Your task to perform on an android device: turn on translation in the chrome app Image 0: 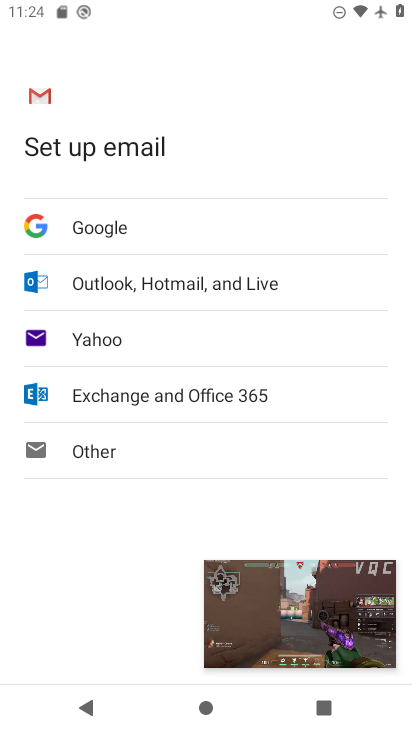
Step 0: click (271, 628)
Your task to perform on an android device: turn on translation in the chrome app Image 1: 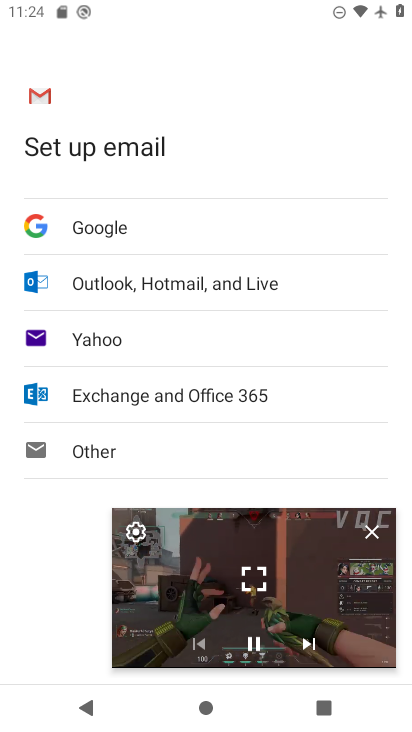
Step 1: click (370, 531)
Your task to perform on an android device: turn on translation in the chrome app Image 2: 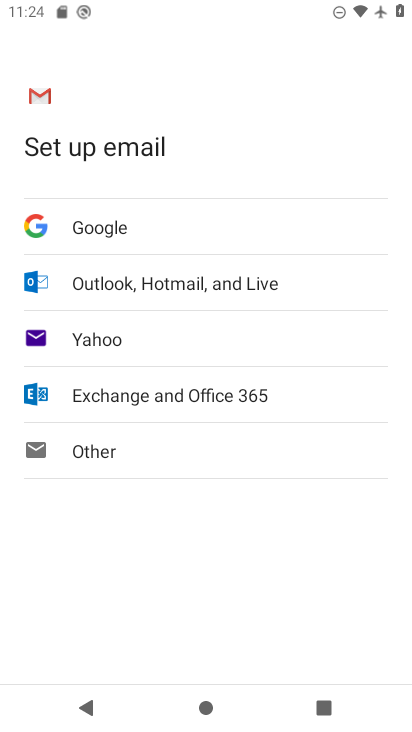
Step 2: press home button
Your task to perform on an android device: turn on translation in the chrome app Image 3: 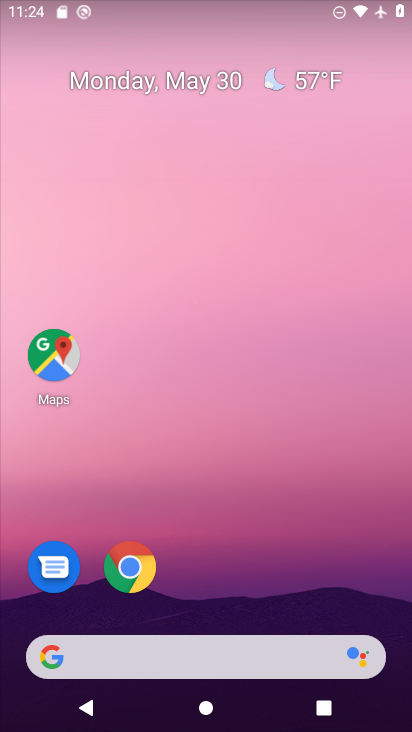
Step 3: click (135, 570)
Your task to perform on an android device: turn on translation in the chrome app Image 4: 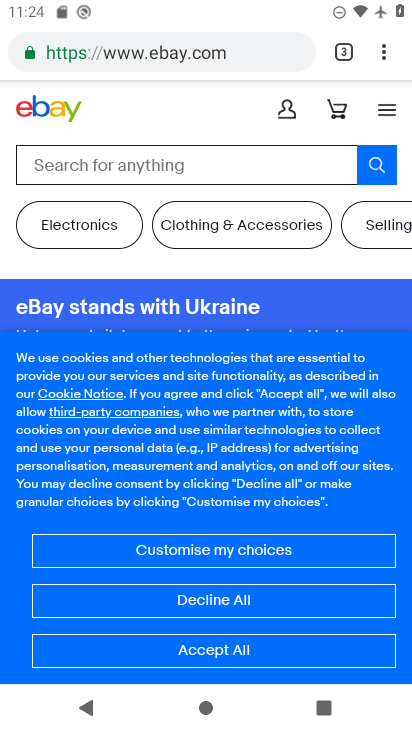
Step 4: click (385, 50)
Your task to perform on an android device: turn on translation in the chrome app Image 5: 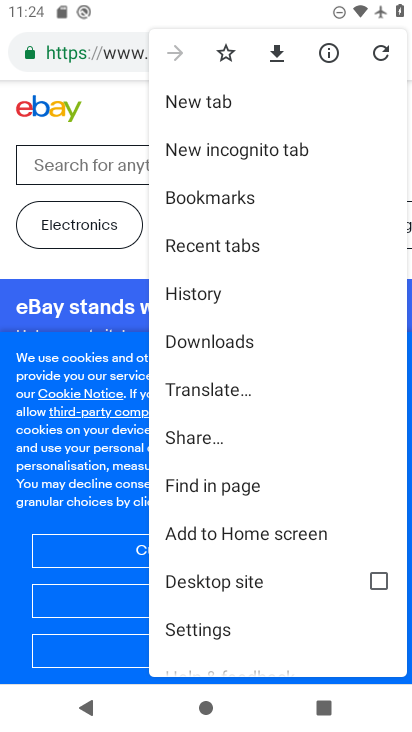
Step 5: click (221, 628)
Your task to perform on an android device: turn on translation in the chrome app Image 6: 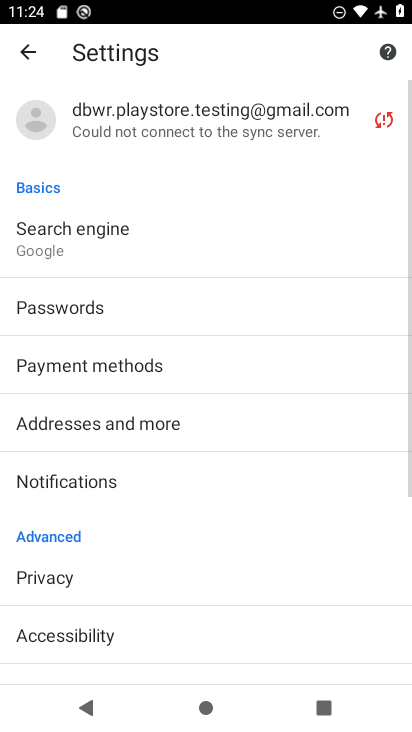
Step 6: drag from (161, 625) to (165, 319)
Your task to perform on an android device: turn on translation in the chrome app Image 7: 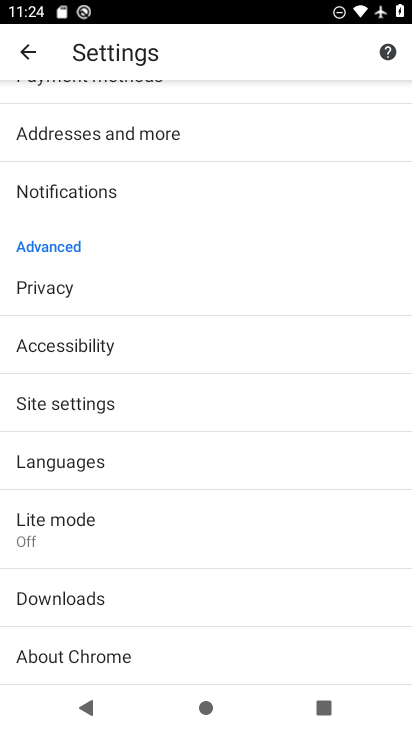
Step 7: click (124, 456)
Your task to perform on an android device: turn on translation in the chrome app Image 8: 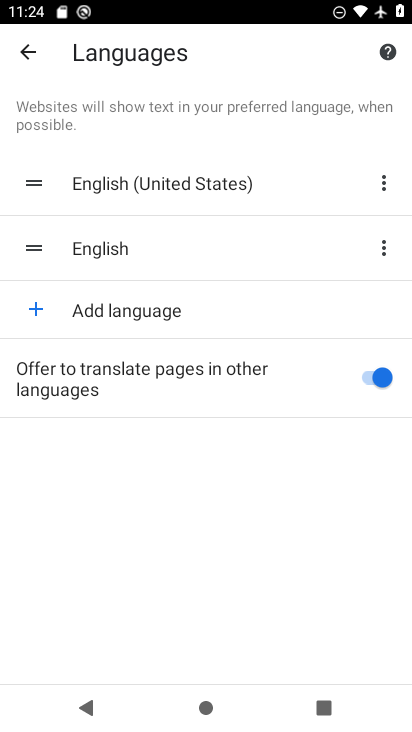
Step 8: task complete